Your task to perform on an android device: change text size in settings app Image 0: 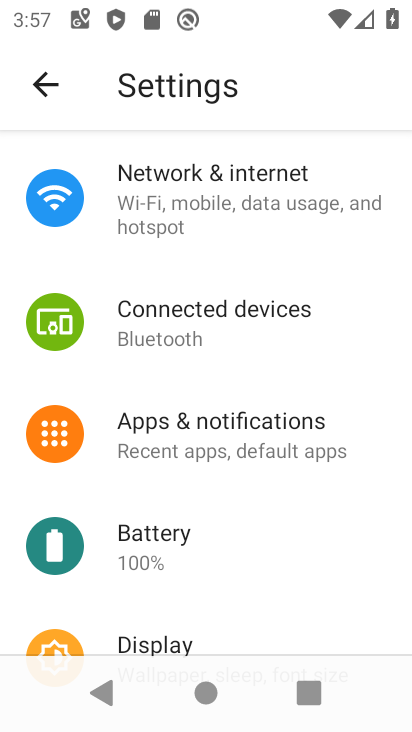
Step 0: drag from (277, 530) to (290, 228)
Your task to perform on an android device: change text size in settings app Image 1: 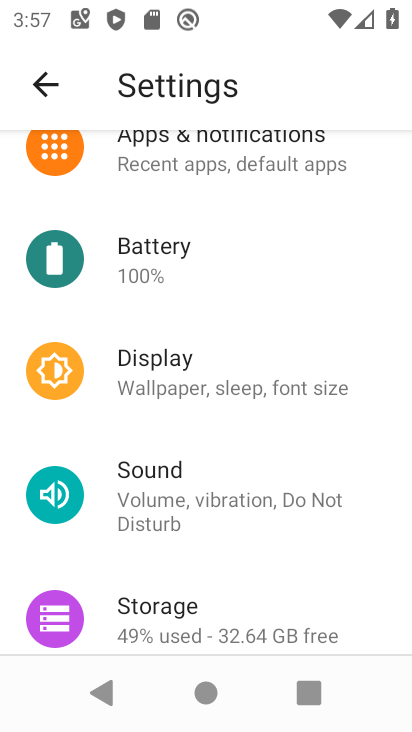
Step 1: click (290, 389)
Your task to perform on an android device: change text size in settings app Image 2: 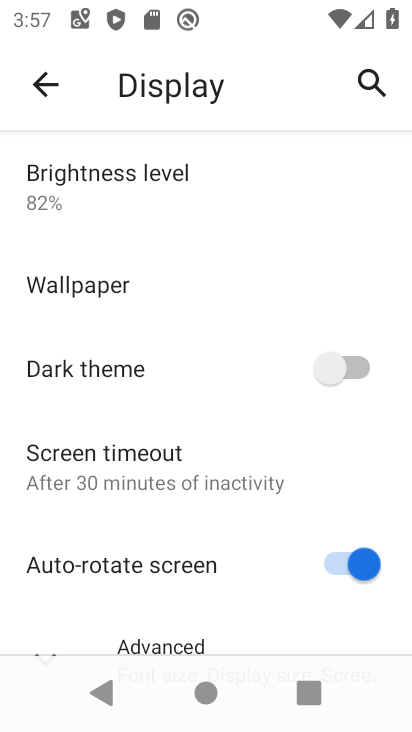
Step 2: drag from (224, 608) to (196, 236)
Your task to perform on an android device: change text size in settings app Image 3: 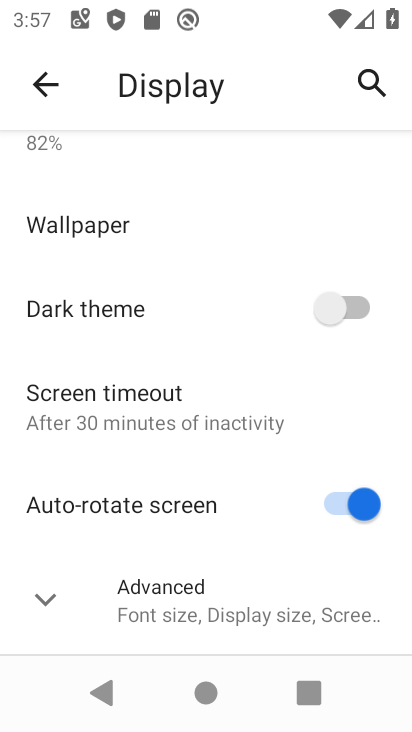
Step 3: click (241, 607)
Your task to perform on an android device: change text size in settings app Image 4: 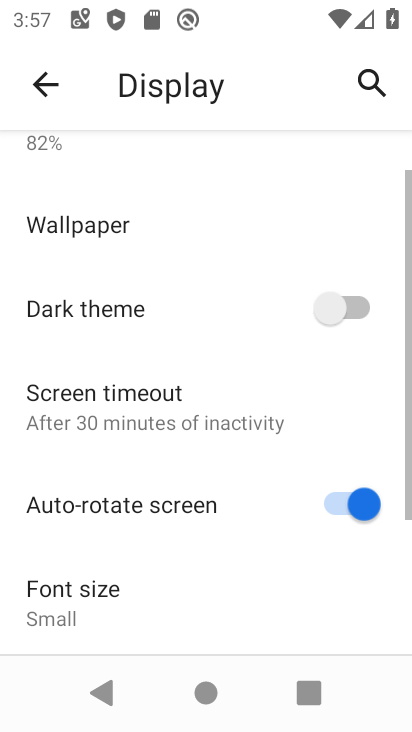
Step 4: drag from (210, 602) to (210, 310)
Your task to perform on an android device: change text size in settings app Image 5: 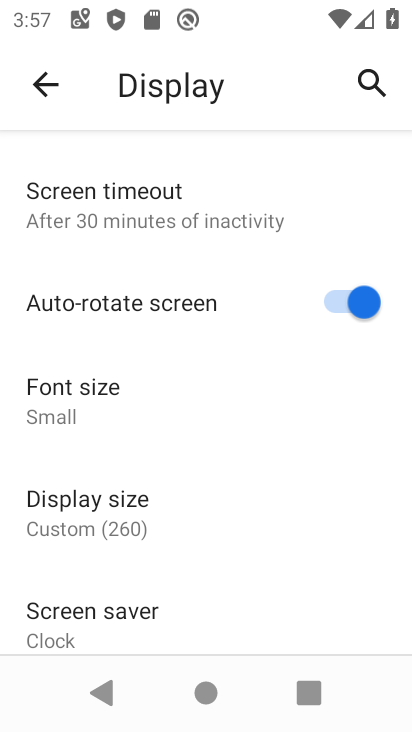
Step 5: click (88, 395)
Your task to perform on an android device: change text size in settings app Image 6: 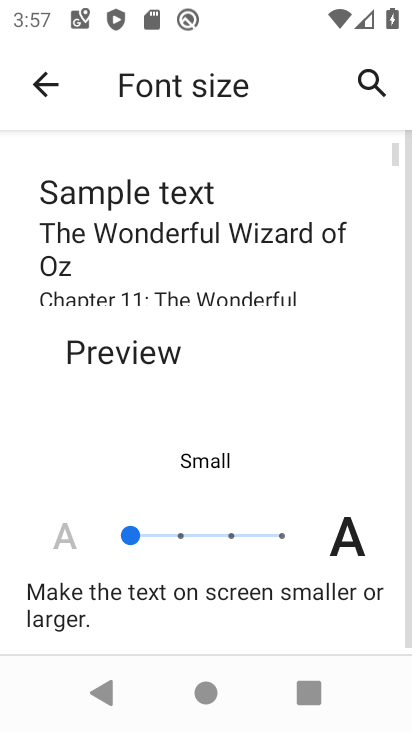
Step 6: click (183, 535)
Your task to perform on an android device: change text size in settings app Image 7: 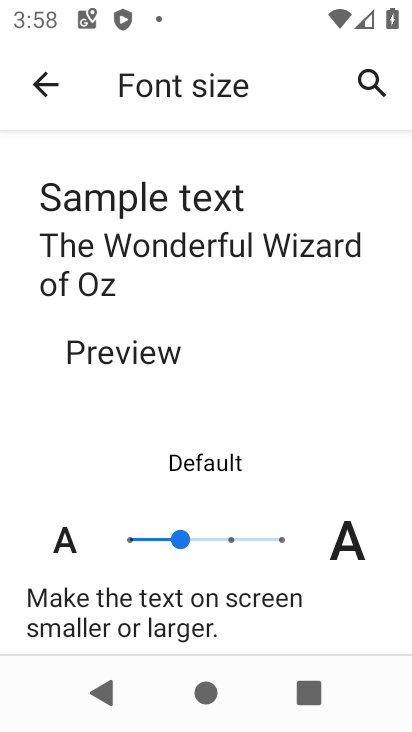
Step 7: task complete